Your task to perform on an android device: Open Youtube and go to "Your channel" Image 0: 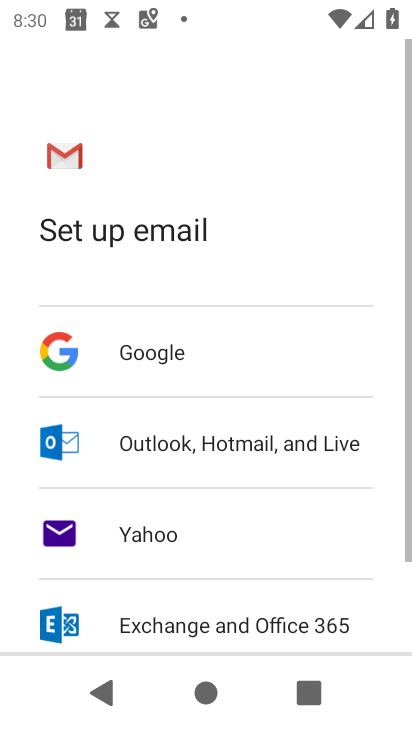
Step 0: press home button
Your task to perform on an android device: Open Youtube and go to "Your channel" Image 1: 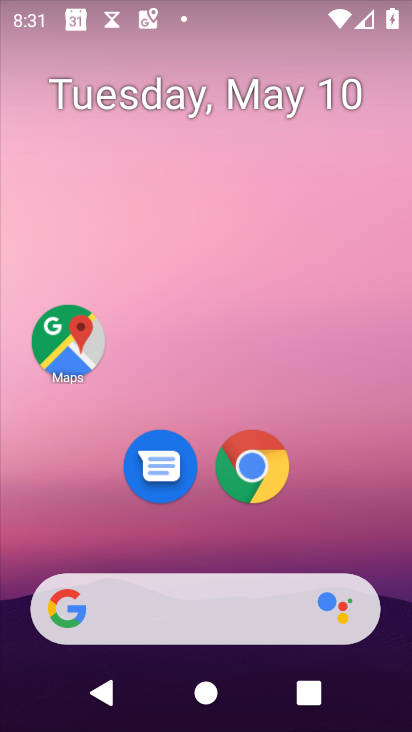
Step 1: drag from (228, 558) to (258, 117)
Your task to perform on an android device: Open Youtube and go to "Your channel" Image 2: 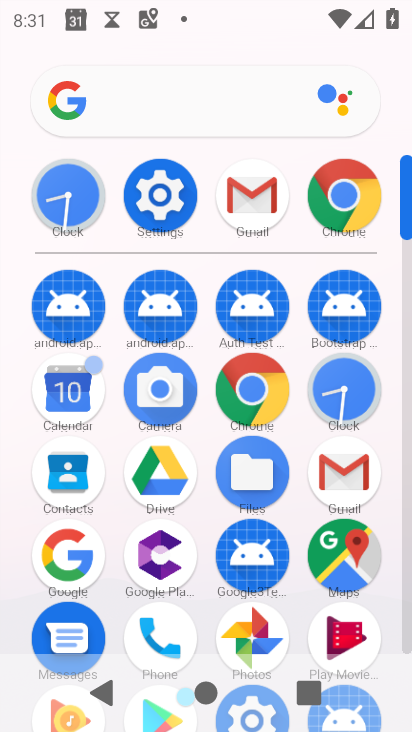
Step 2: drag from (178, 602) to (275, 297)
Your task to perform on an android device: Open Youtube and go to "Your channel" Image 3: 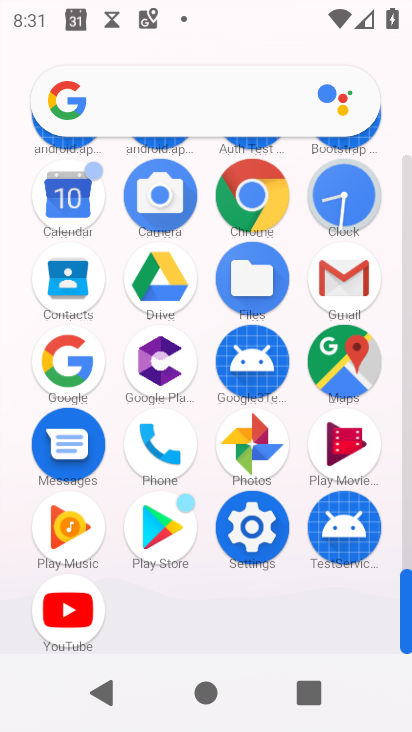
Step 3: click (53, 617)
Your task to perform on an android device: Open Youtube and go to "Your channel" Image 4: 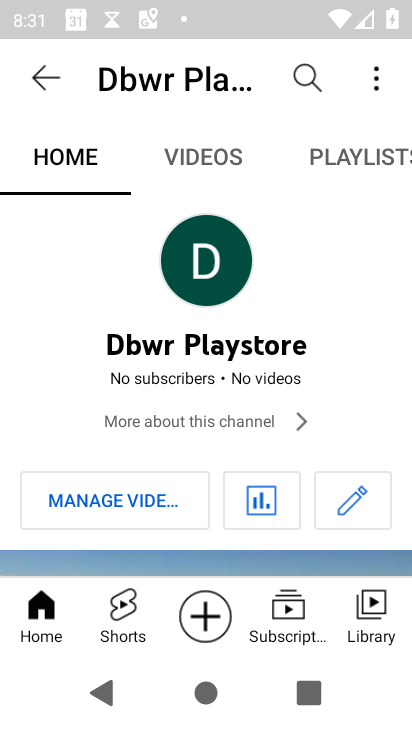
Step 4: task complete